Your task to perform on an android device: allow cookies in the chrome app Image 0: 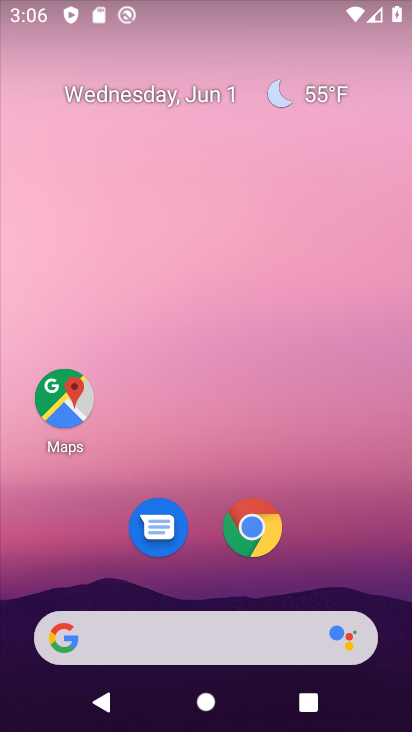
Step 0: press home button
Your task to perform on an android device: allow cookies in the chrome app Image 1: 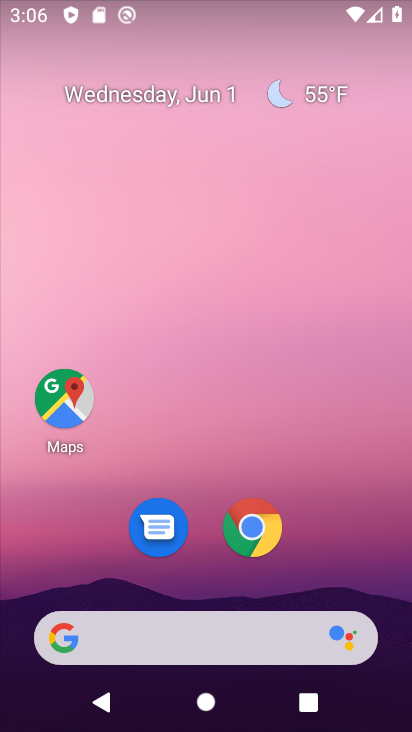
Step 1: drag from (336, 563) to (267, 75)
Your task to perform on an android device: allow cookies in the chrome app Image 2: 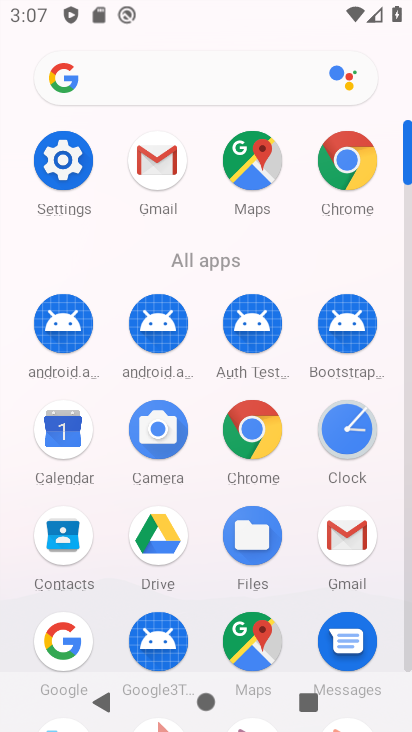
Step 2: click (368, 167)
Your task to perform on an android device: allow cookies in the chrome app Image 3: 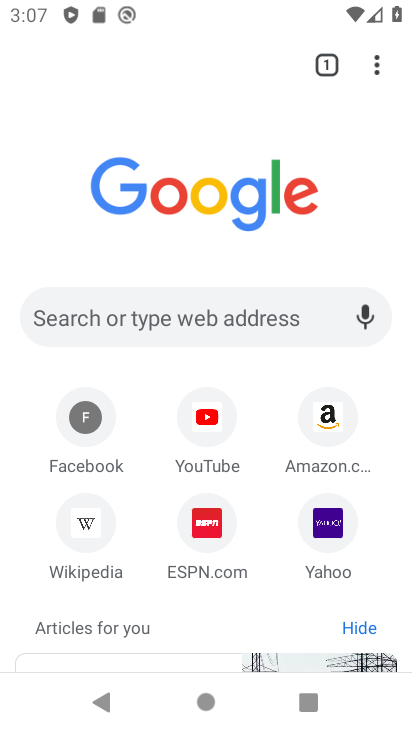
Step 3: drag from (371, 44) to (178, 550)
Your task to perform on an android device: allow cookies in the chrome app Image 4: 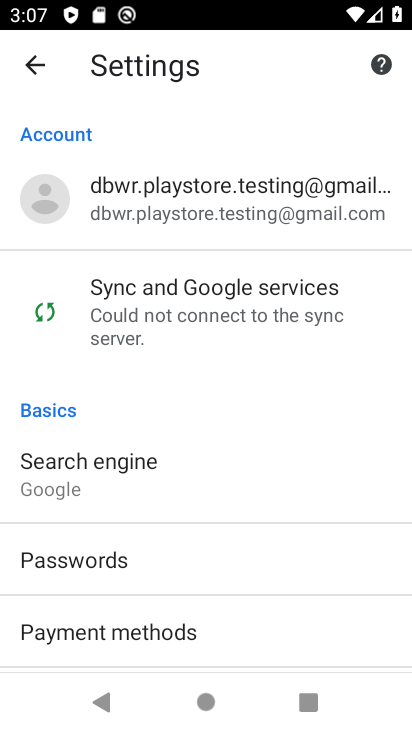
Step 4: drag from (258, 555) to (206, 267)
Your task to perform on an android device: allow cookies in the chrome app Image 5: 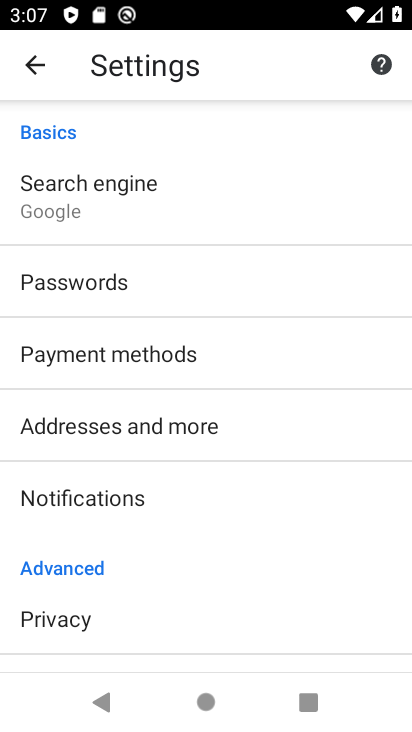
Step 5: drag from (176, 567) to (180, 303)
Your task to perform on an android device: allow cookies in the chrome app Image 6: 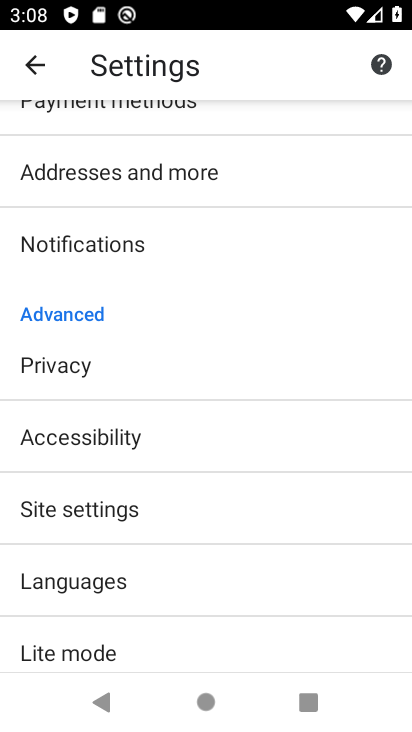
Step 6: click (102, 514)
Your task to perform on an android device: allow cookies in the chrome app Image 7: 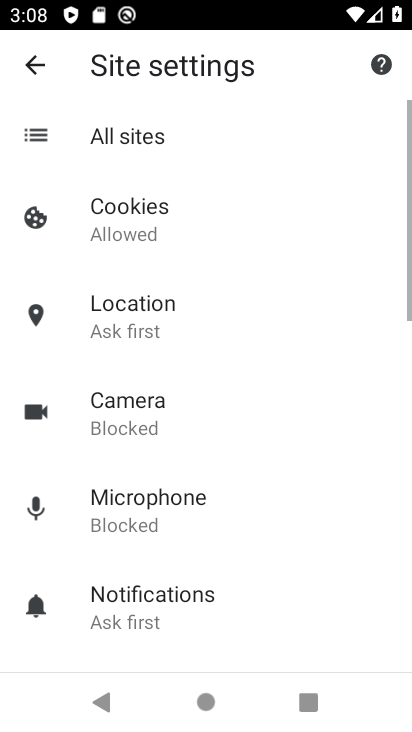
Step 7: click (218, 227)
Your task to perform on an android device: allow cookies in the chrome app Image 8: 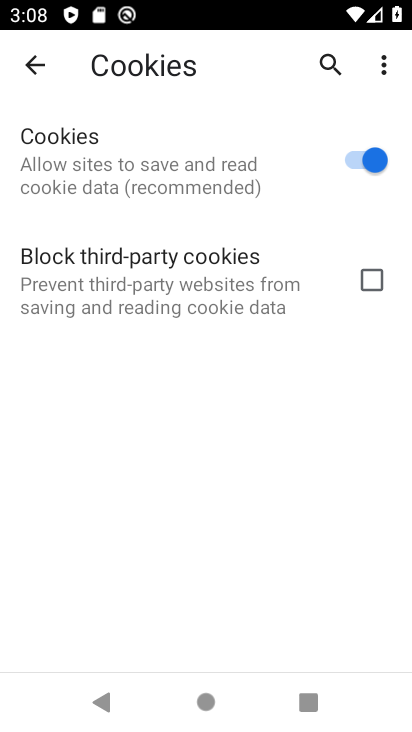
Step 8: task complete